Your task to perform on an android device: open the mobile data screen to see how much data has been used Image 0: 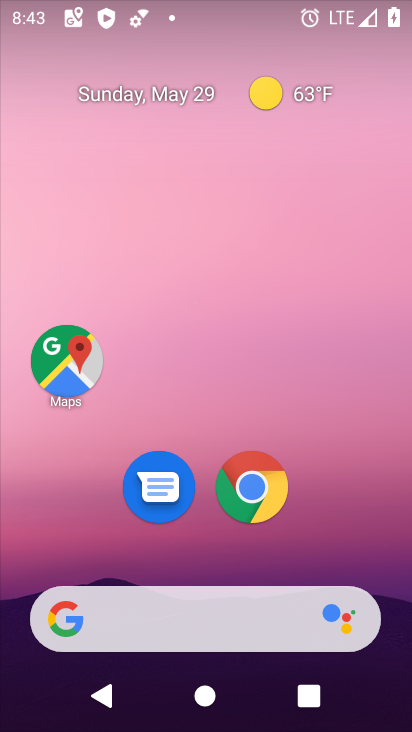
Step 0: press home button
Your task to perform on an android device: open the mobile data screen to see how much data has been used Image 1: 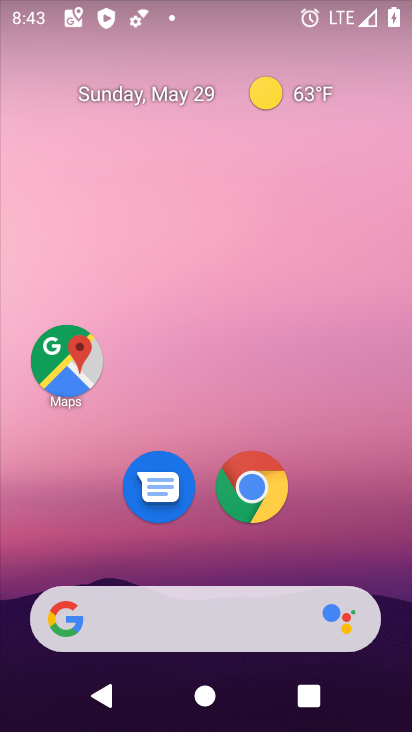
Step 1: drag from (203, 653) to (264, 227)
Your task to perform on an android device: open the mobile data screen to see how much data has been used Image 2: 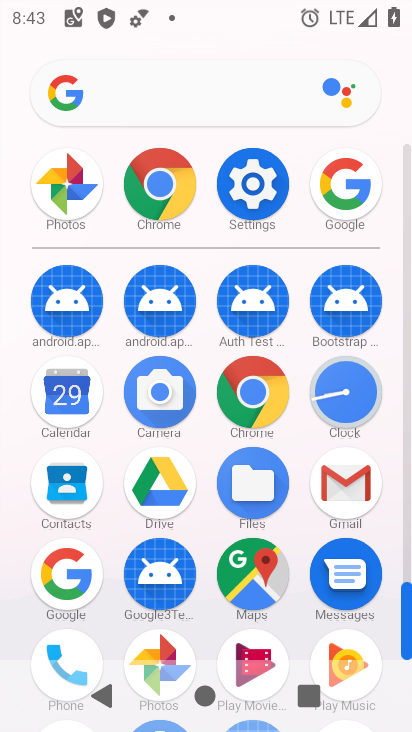
Step 2: click (255, 194)
Your task to perform on an android device: open the mobile data screen to see how much data has been used Image 3: 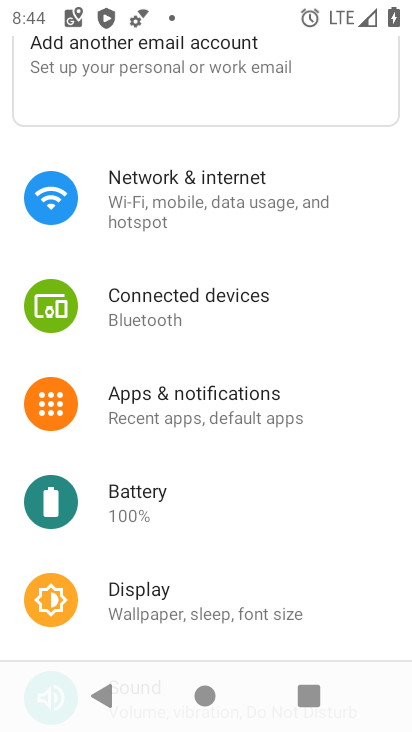
Step 3: click (219, 203)
Your task to perform on an android device: open the mobile data screen to see how much data has been used Image 4: 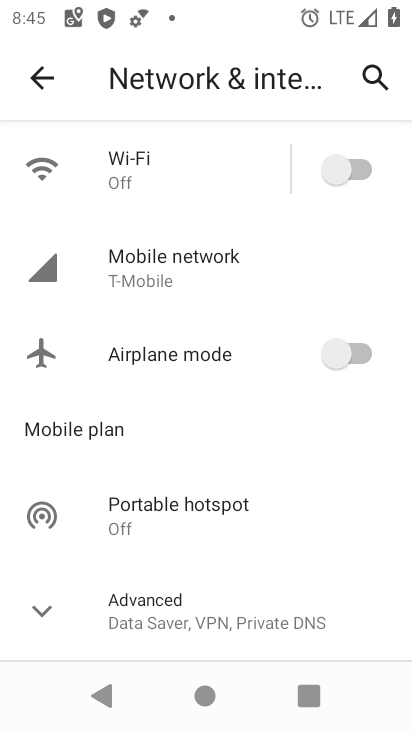
Step 4: click (177, 608)
Your task to perform on an android device: open the mobile data screen to see how much data has been used Image 5: 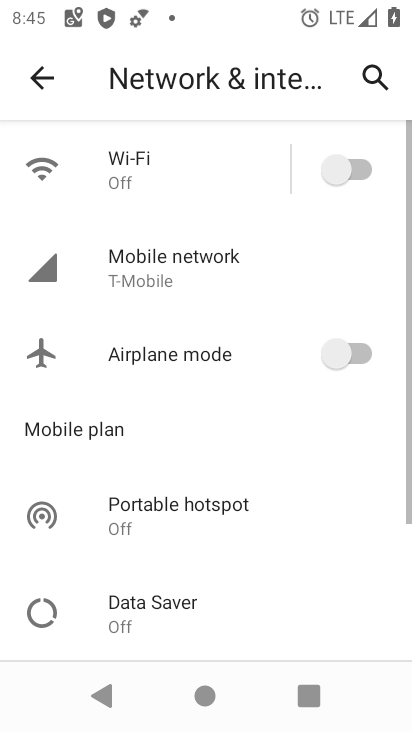
Step 5: drag from (187, 555) to (251, 159)
Your task to perform on an android device: open the mobile data screen to see how much data has been used Image 6: 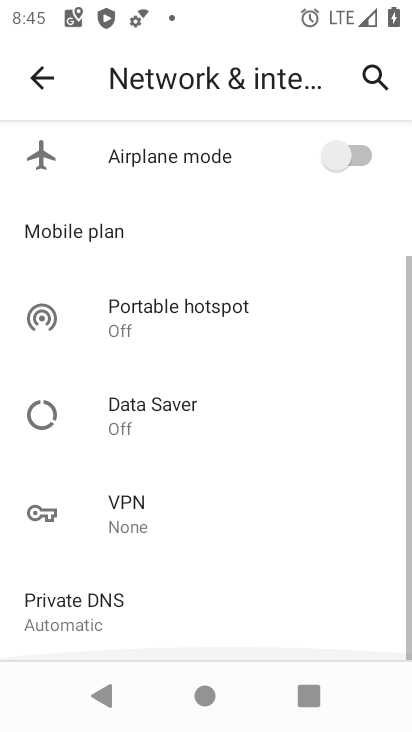
Step 6: drag from (223, 417) to (211, 718)
Your task to perform on an android device: open the mobile data screen to see how much data has been used Image 7: 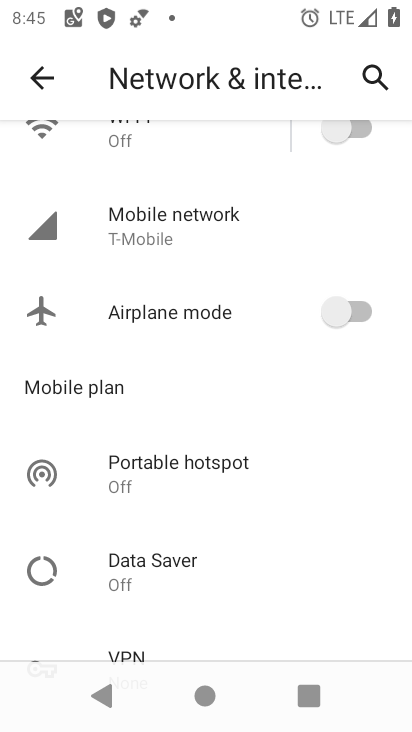
Step 7: click (213, 229)
Your task to perform on an android device: open the mobile data screen to see how much data has been used Image 8: 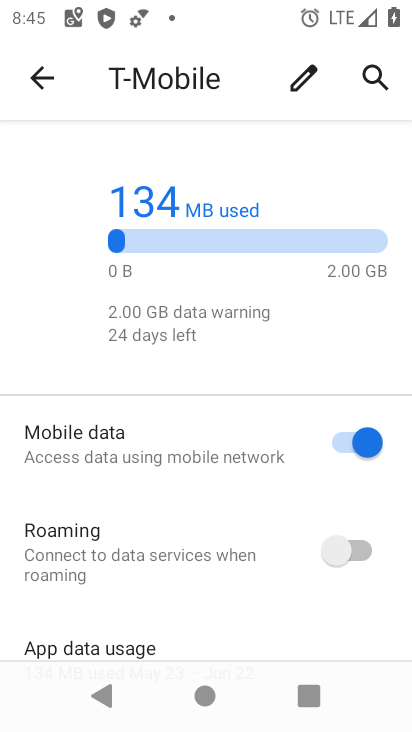
Step 8: drag from (185, 479) to (240, 205)
Your task to perform on an android device: open the mobile data screen to see how much data has been used Image 9: 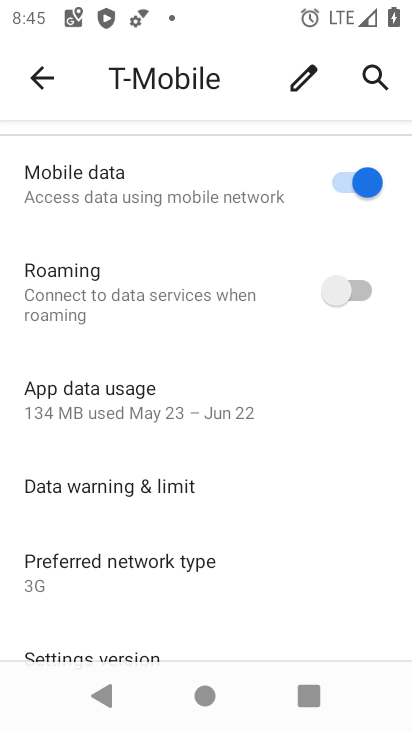
Step 9: click (208, 407)
Your task to perform on an android device: open the mobile data screen to see how much data has been used Image 10: 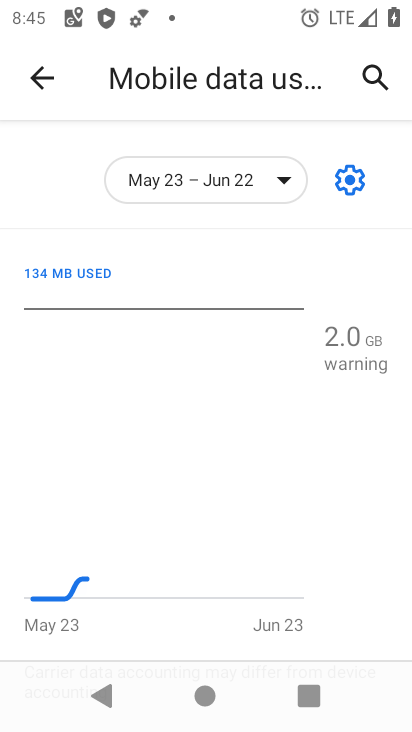
Step 10: task complete